Your task to perform on an android device: open wifi settings Image 0: 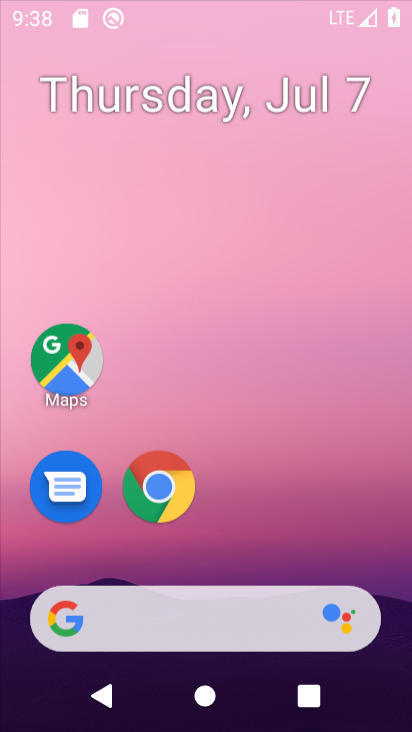
Step 0: drag from (357, 535) to (359, 155)
Your task to perform on an android device: open wifi settings Image 1: 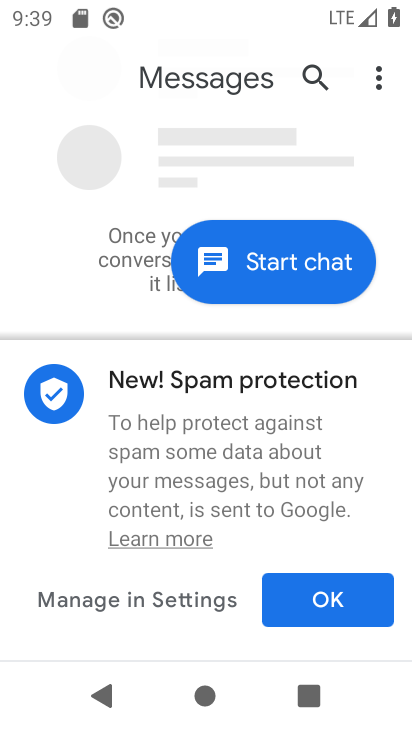
Step 1: press home button
Your task to perform on an android device: open wifi settings Image 2: 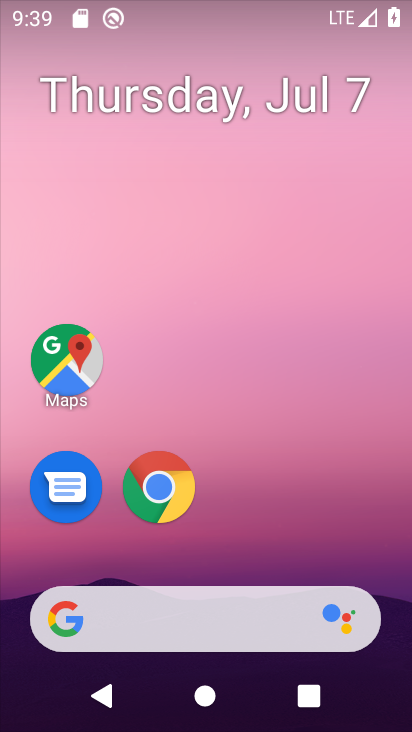
Step 2: drag from (363, 524) to (352, 171)
Your task to perform on an android device: open wifi settings Image 3: 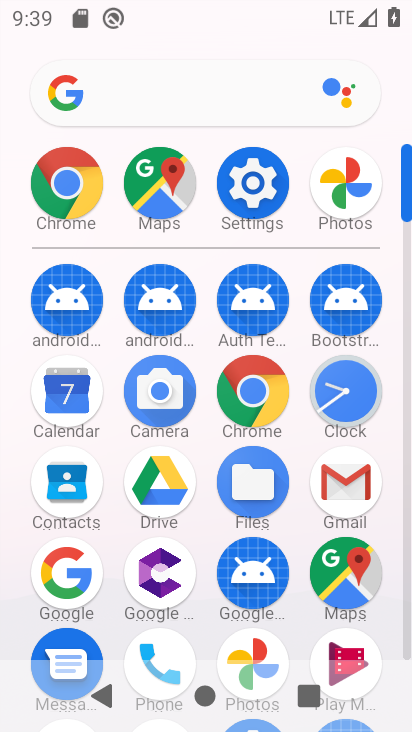
Step 3: click (272, 195)
Your task to perform on an android device: open wifi settings Image 4: 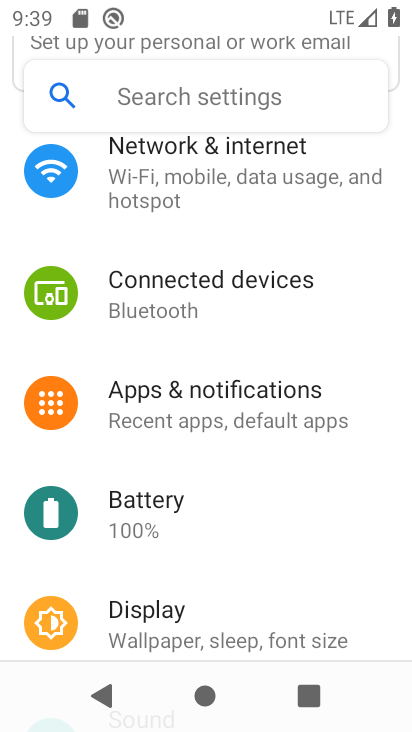
Step 4: click (266, 165)
Your task to perform on an android device: open wifi settings Image 5: 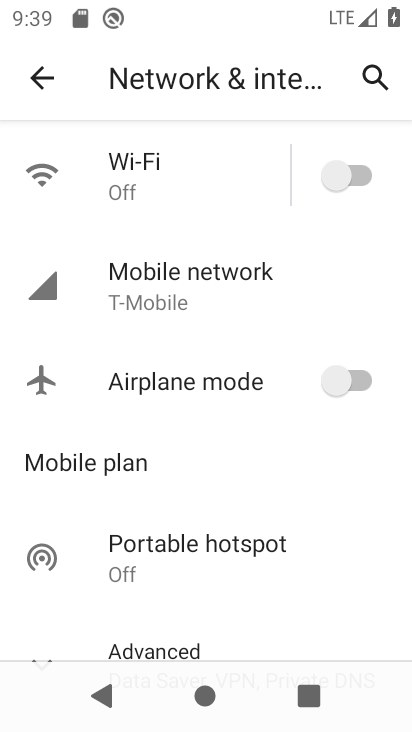
Step 5: click (197, 178)
Your task to perform on an android device: open wifi settings Image 6: 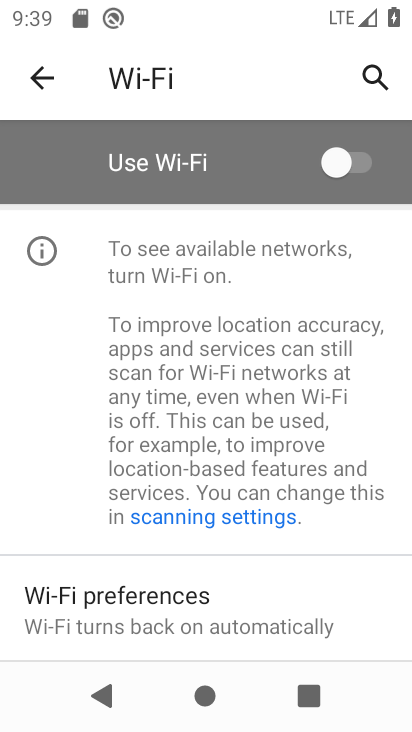
Step 6: task complete